Your task to perform on an android device: Turn on the flashlight Image 0: 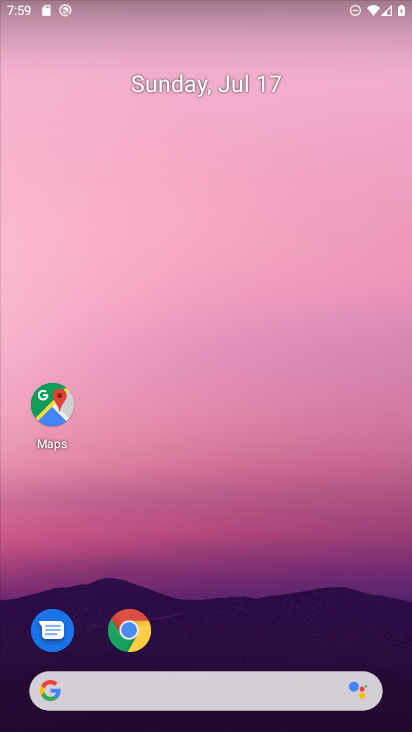
Step 0: drag from (269, 636) to (268, 233)
Your task to perform on an android device: Turn on the flashlight Image 1: 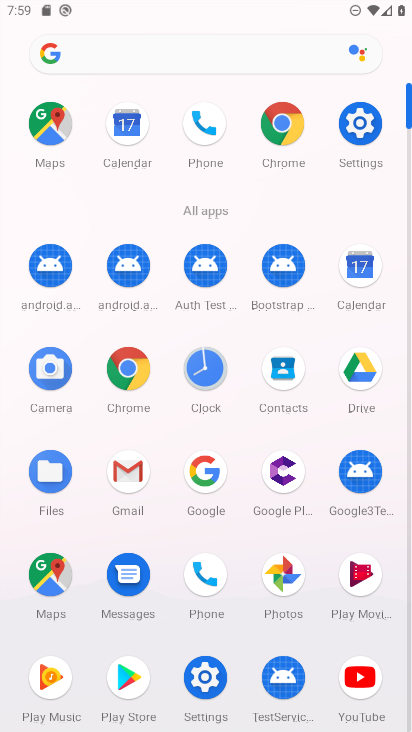
Step 1: click (364, 126)
Your task to perform on an android device: Turn on the flashlight Image 2: 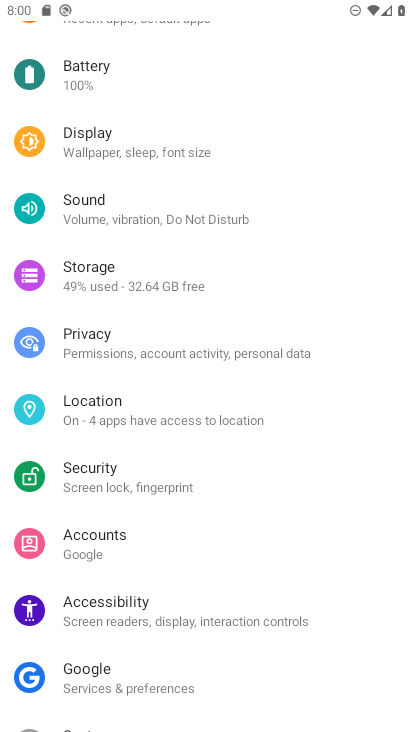
Step 2: task complete